Your task to perform on an android device: toggle notifications settings in the gmail app Image 0: 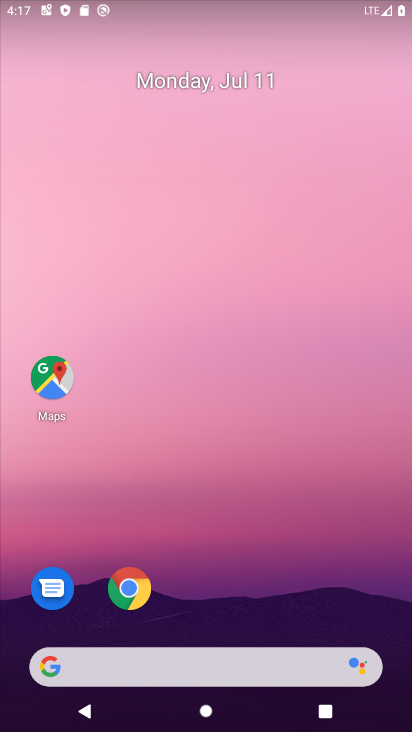
Step 0: drag from (356, 586) to (349, 95)
Your task to perform on an android device: toggle notifications settings in the gmail app Image 1: 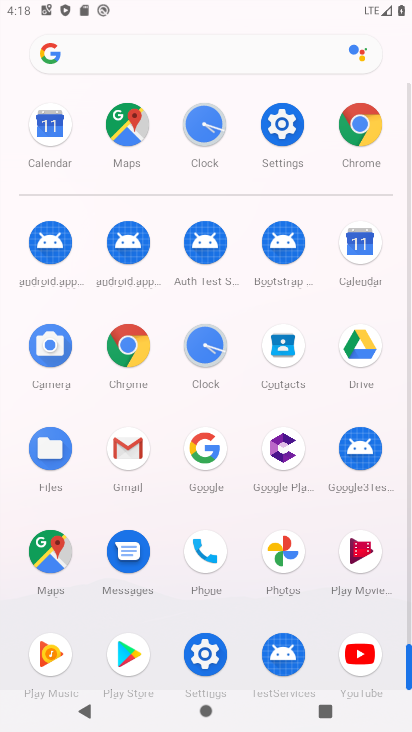
Step 1: click (130, 451)
Your task to perform on an android device: toggle notifications settings in the gmail app Image 2: 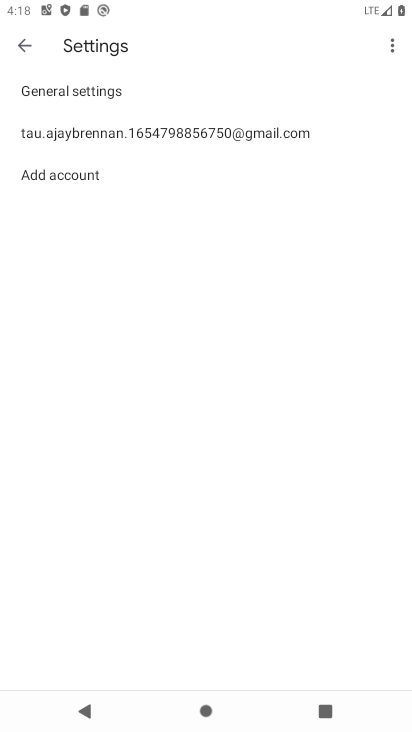
Step 2: click (127, 142)
Your task to perform on an android device: toggle notifications settings in the gmail app Image 3: 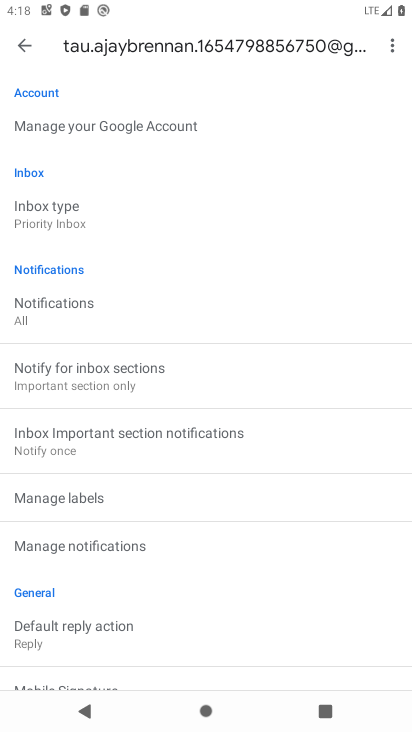
Step 3: drag from (271, 303) to (281, 243)
Your task to perform on an android device: toggle notifications settings in the gmail app Image 4: 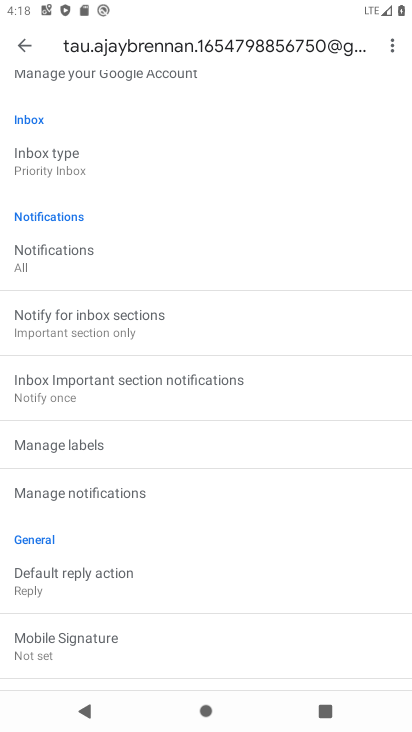
Step 4: drag from (319, 339) to (323, 277)
Your task to perform on an android device: toggle notifications settings in the gmail app Image 5: 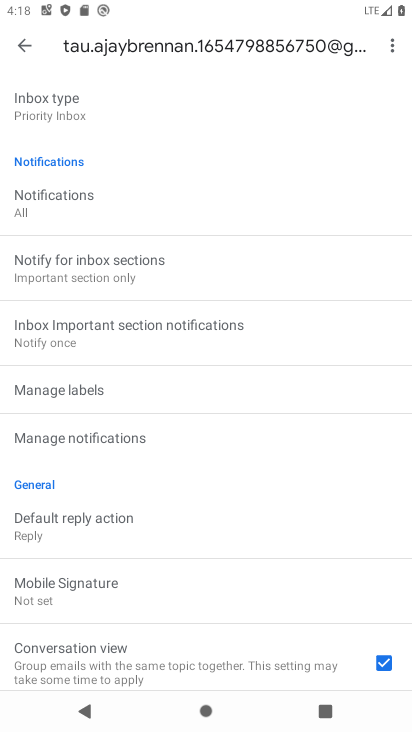
Step 5: click (88, 216)
Your task to perform on an android device: toggle notifications settings in the gmail app Image 6: 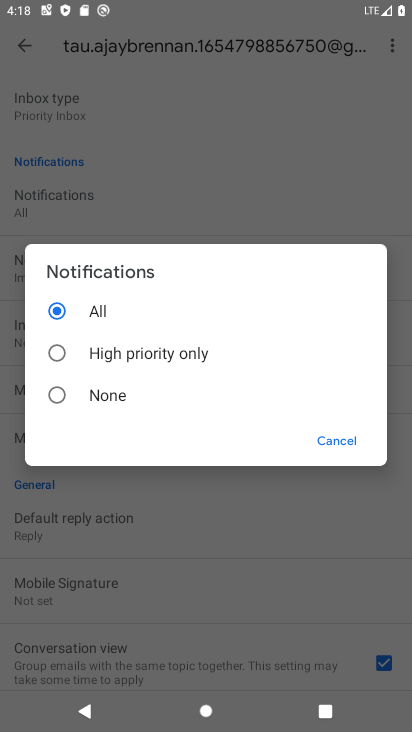
Step 6: click (183, 349)
Your task to perform on an android device: toggle notifications settings in the gmail app Image 7: 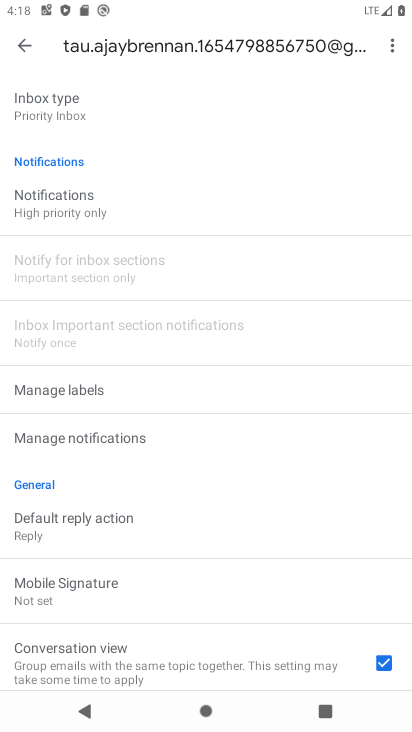
Step 7: task complete